Your task to perform on an android device: show emergency info Image 0: 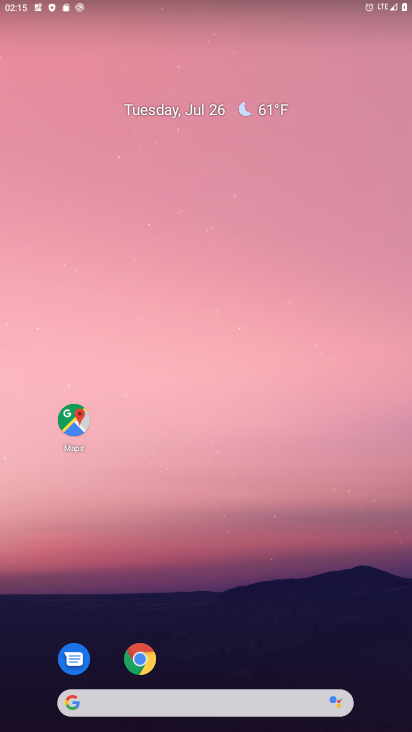
Step 0: drag from (262, 674) to (262, 139)
Your task to perform on an android device: show emergency info Image 1: 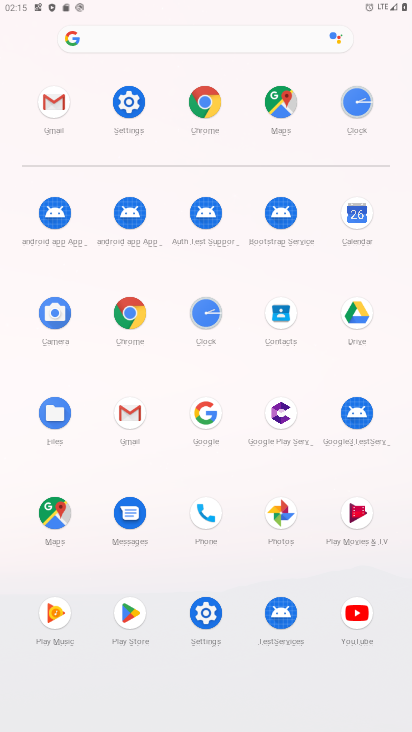
Step 1: click (139, 100)
Your task to perform on an android device: show emergency info Image 2: 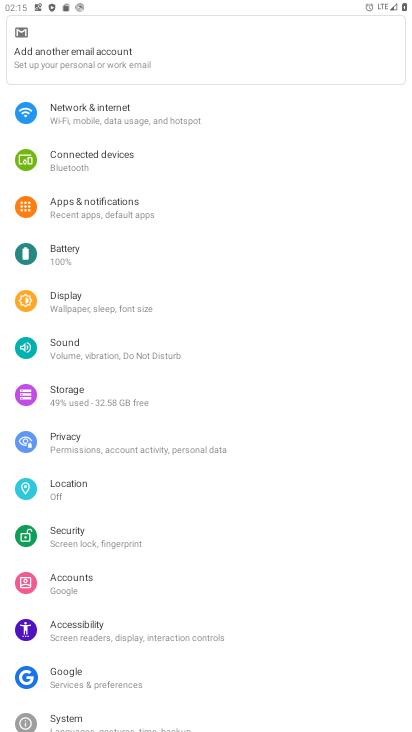
Step 2: drag from (168, 606) to (216, 156)
Your task to perform on an android device: show emergency info Image 3: 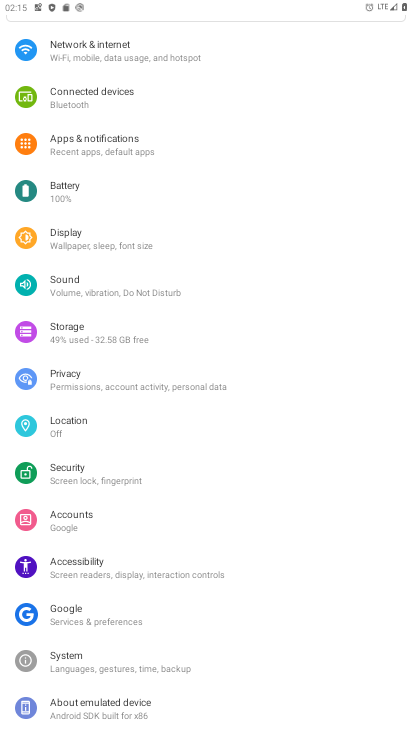
Step 3: click (129, 712)
Your task to perform on an android device: show emergency info Image 4: 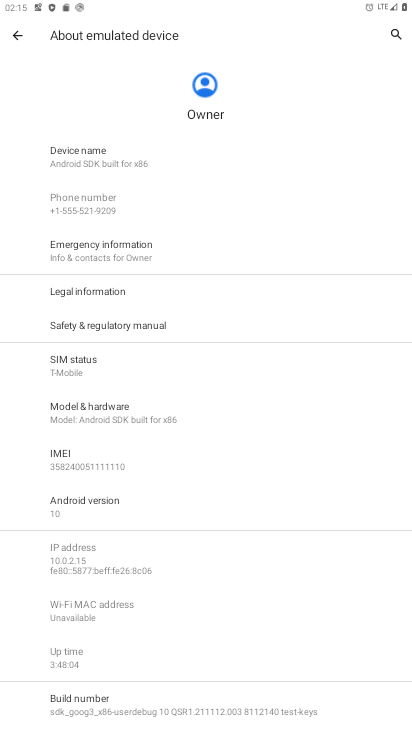
Step 4: click (106, 245)
Your task to perform on an android device: show emergency info Image 5: 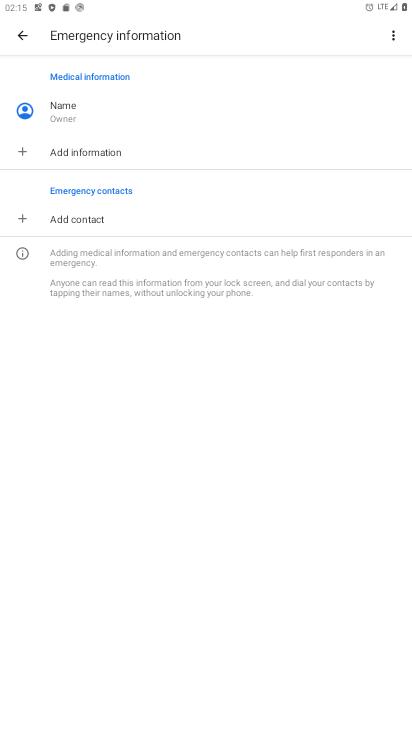
Step 5: task complete